Your task to perform on an android device: remove spam from my inbox in the gmail app Image 0: 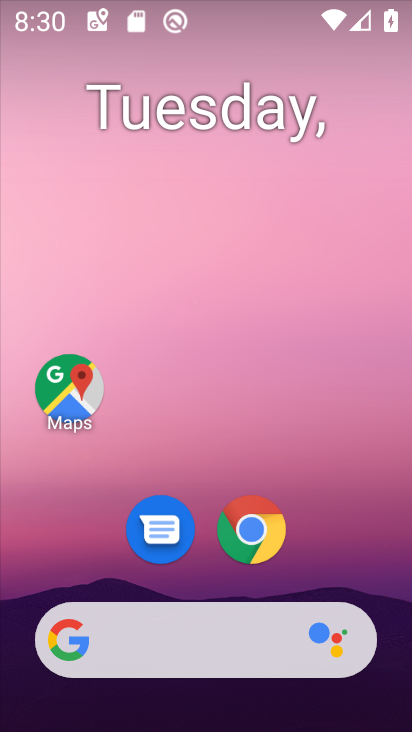
Step 0: drag from (229, 468) to (253, 178)
Your task to perform on an android device: remove spam from my inbox in the gmail app Image 1: 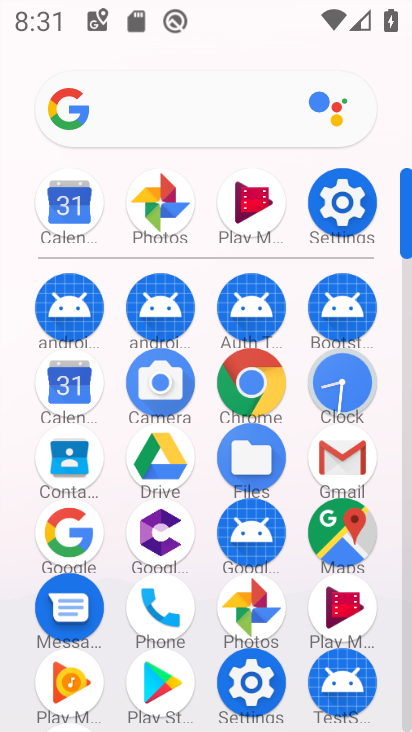
Step 1: click (334, 454)
Your task to perform on an android device: remove spam from my inbox in the gmail app Image 2: 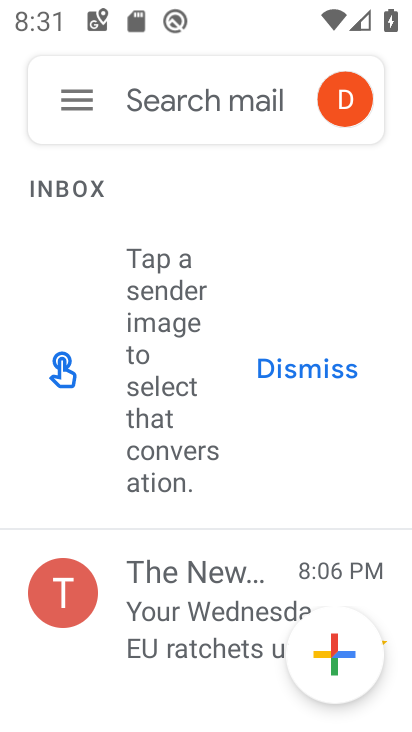
Step 2: click (69, 91)
Your task to perform on an android device: remove spam from my inbox in the gmail app Image 3: 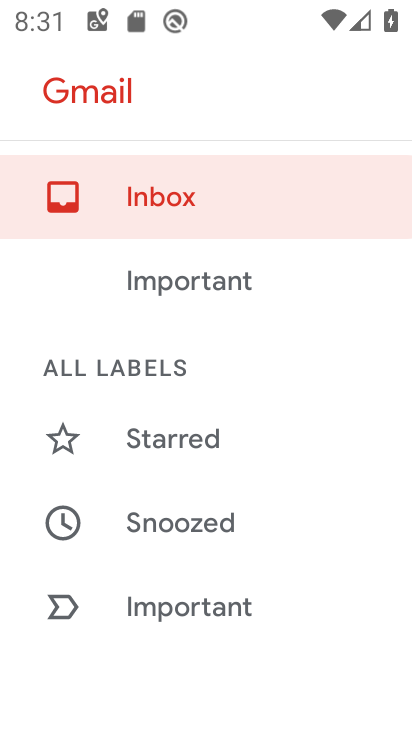
Step 3: drag from (209, 600) to (262, 118)
Your task to perform on an android device: remove spam from my inbox in the gmail app Image 4: 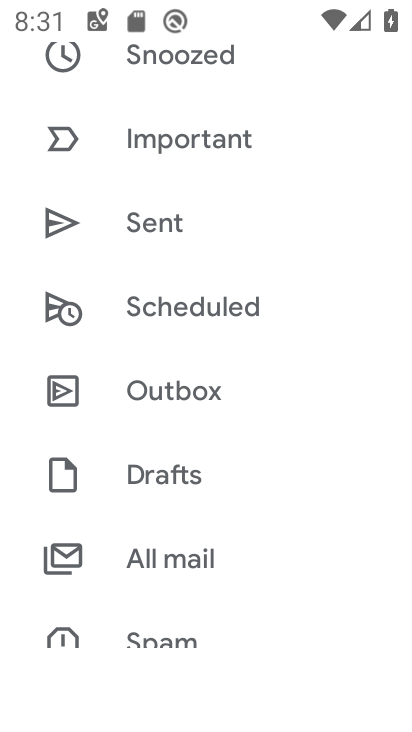
Step 4: drag from (188, 557) to (259, 273)
Your task to perform on an android device: remove spam from my inbox in the gmail app Image 5: 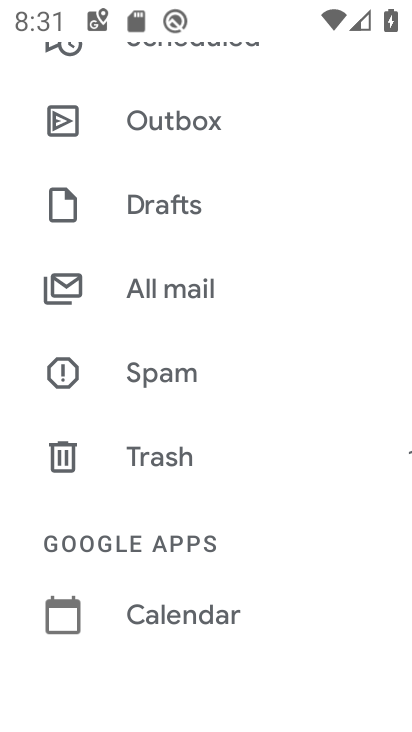
Step 5: click (165, 374)
Your task to perform on an android device: remove spam from my inbox in the gmail app Image 6: 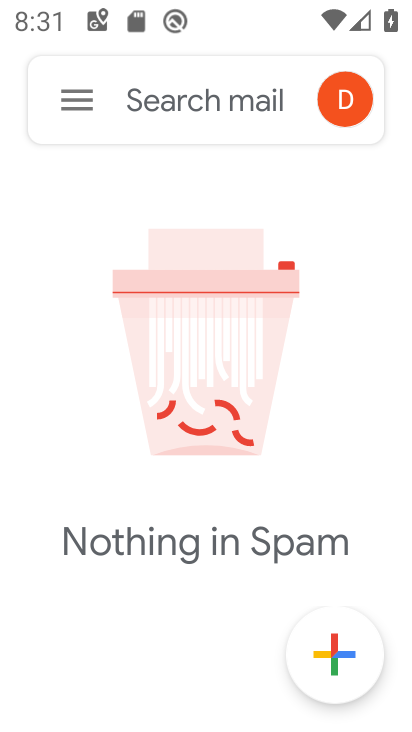
Step 6: task complete